Your task to perform on an android device: Open Google Maps and go to "Timeline" Image 0: 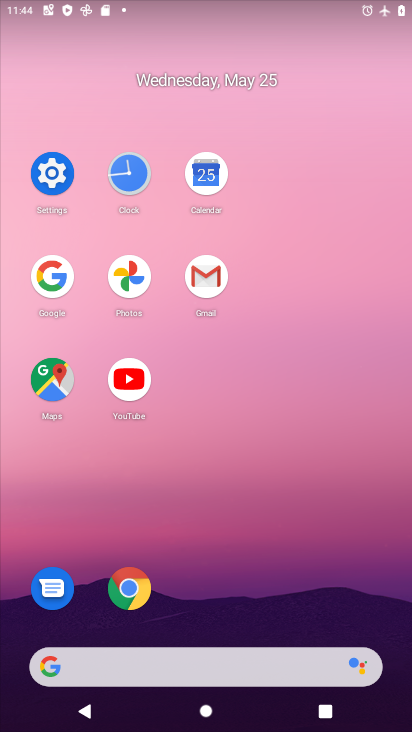
Step 0: click (51, 387)
Your task to perform on an android device: Open Google Maps and go to "Timeline" Image 1: 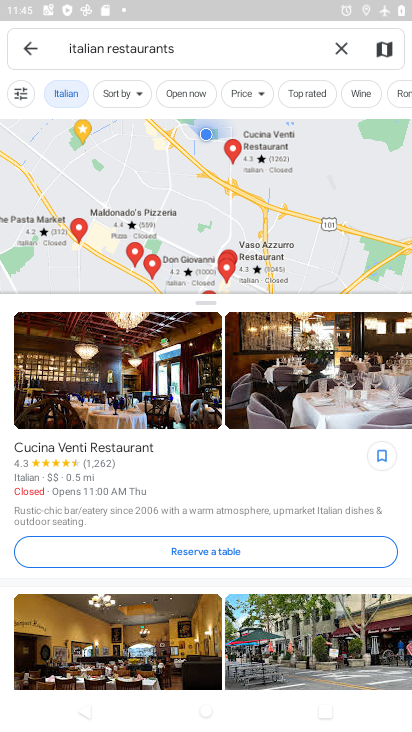
Step 1: click (32, 56)
Your task to perform on an android device: Open Google Maps and go to "Timeline" Image 2: 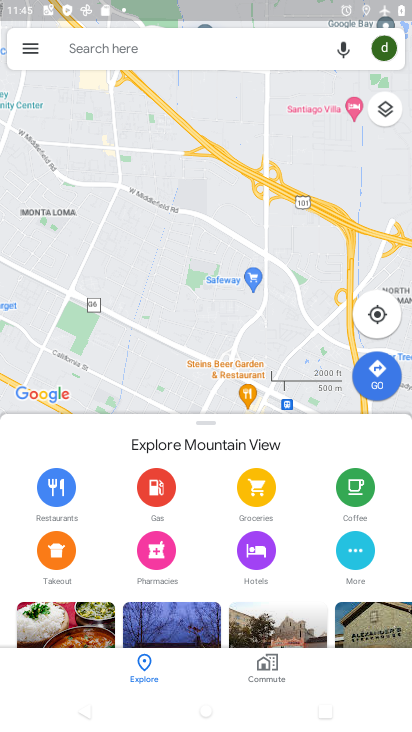
Step 2: click (32, 56)
Your task to perform on an android device: Open Google Maps and go to "Timeline" Image 3: 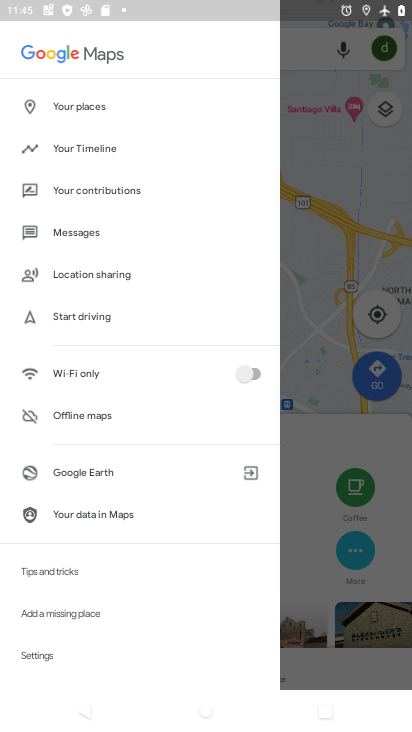
Step 3: click (104, 149)
Your task to perform on an android device: Open Google Maps and go to "Timeline" Image 4: 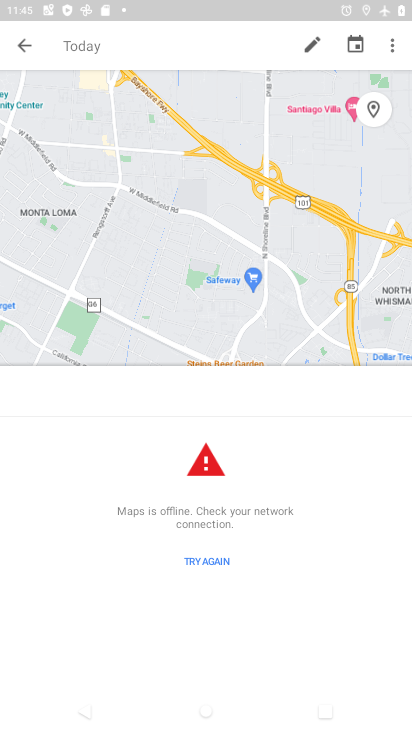
Step 4: task complete